Your task to perform on an android device: Open Google Image 0: 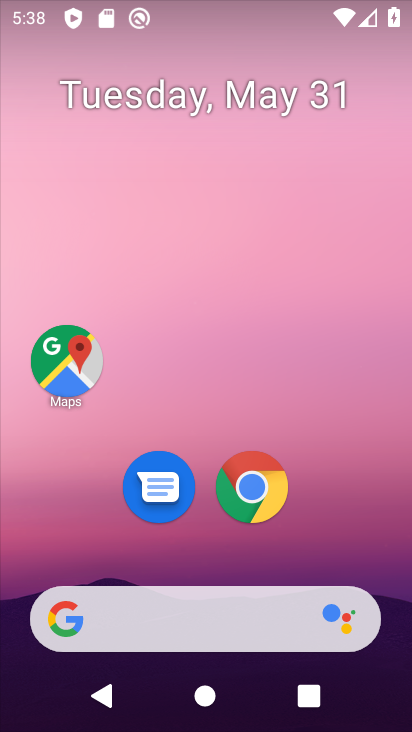
Step 0: click (65, 625)
Your task to perform on an android device: Open Google Image 1: 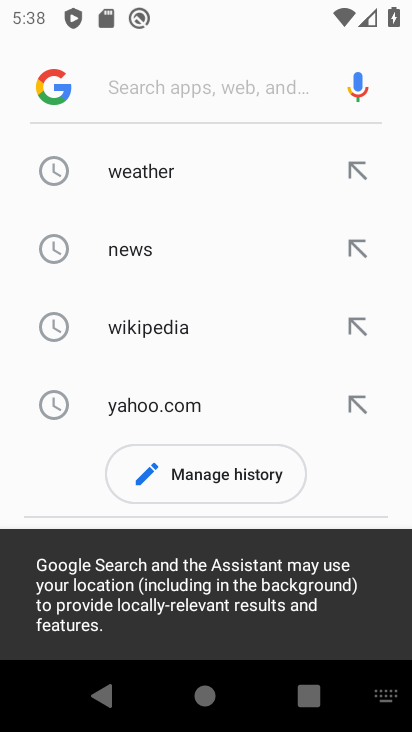
Step 1: click (61, 94)
Your task to perform on an android device: Open Google Image 2: 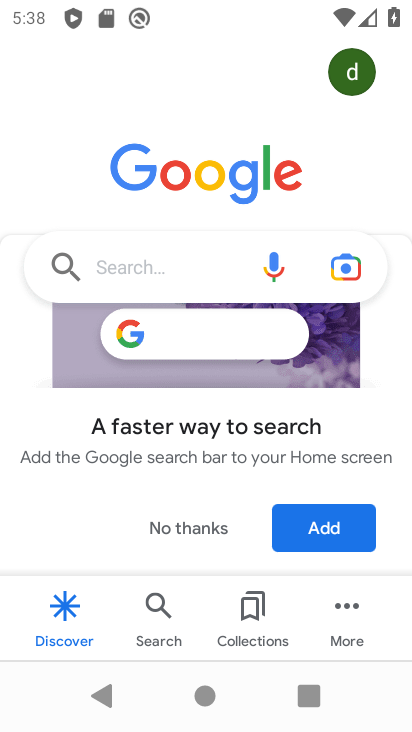
Step 2: task complete